Your task to perform on an android device: toggle improve location accuracy Image 0: 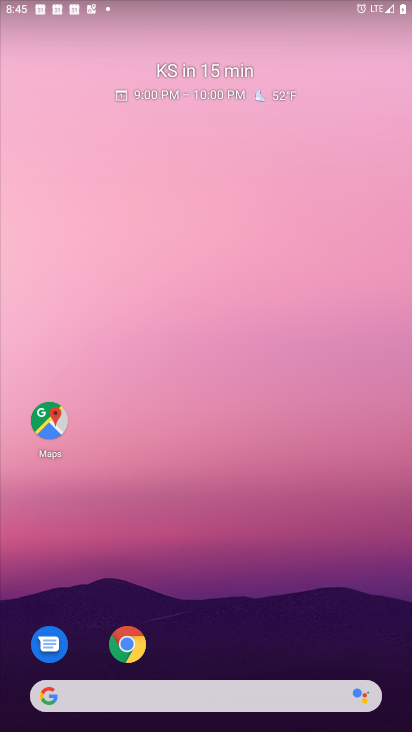
Step 0: drag from (386, 646) to (321, 142)
Your task to perform on an android device: toggle improve location accuracy Image 1: 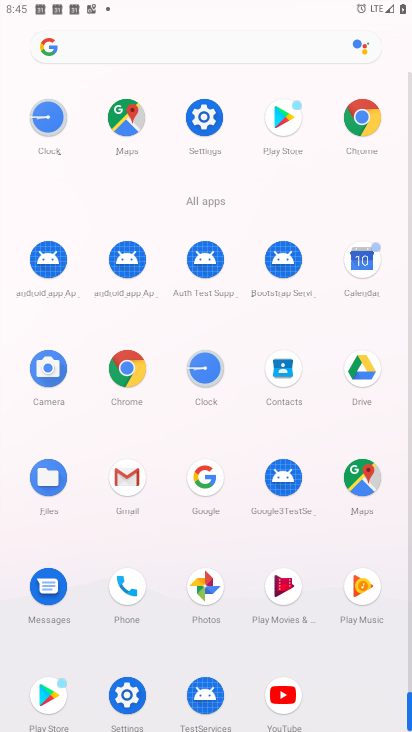
Step 1: click (124, 693)
Your task to perform on an android device: toggle improve location accuracy Image 2: 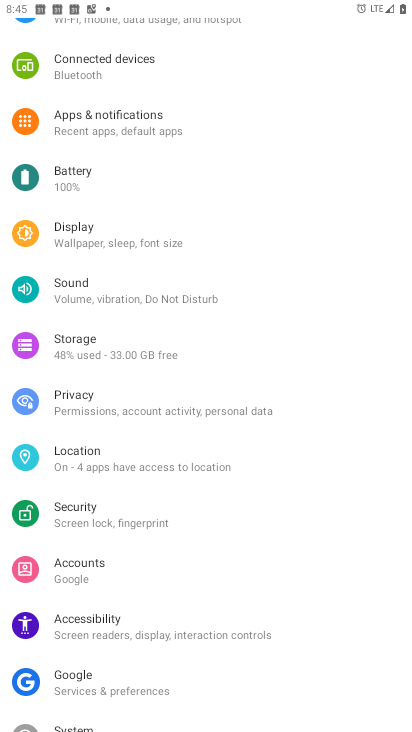
Step 2: click (93, 448)
Your task to perform on an android device: toggle improve location accuracy Image 3: 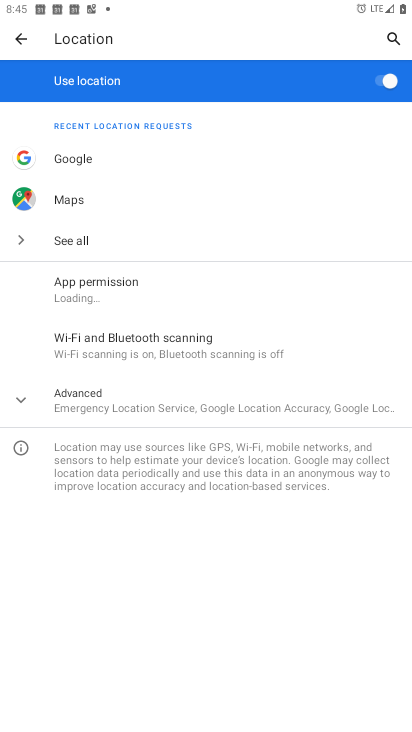
Step 3: click (15, 396)
Your task to perform on an android device: toggle improve location accuracy Image 4: 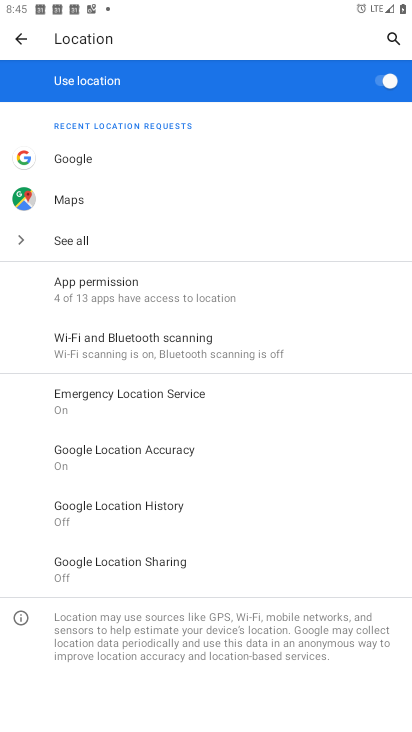
Step 4: click (89, 444)
Your task to perform on an android device: toggle improve location accuracy Image 5: 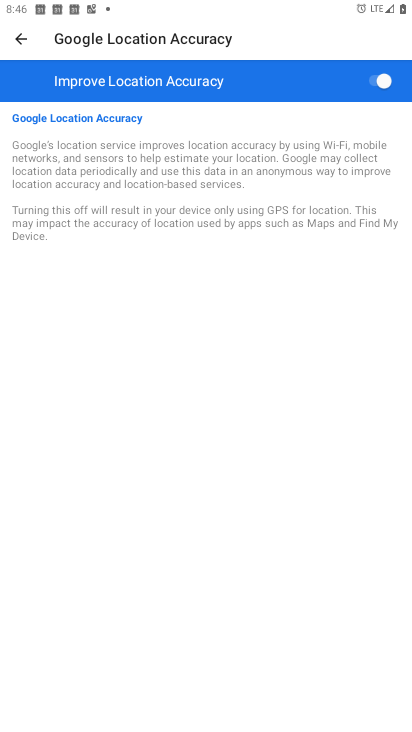
Step 5: click (375, 79)
Your task to perform on an android device: toggle improve location accuracy Image 6: 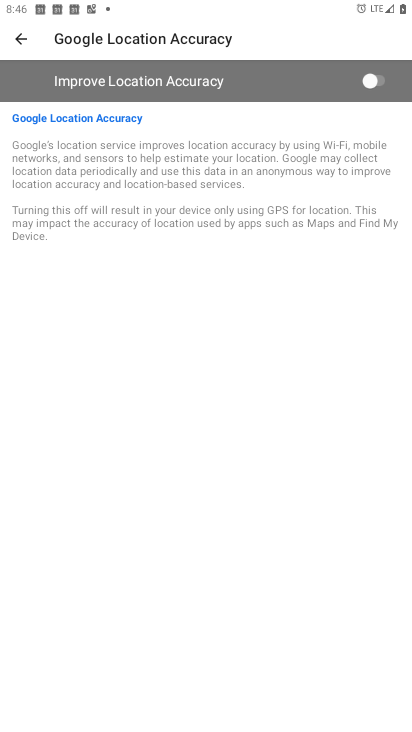
Step 6: task complete